Your task to perform on an android device: See recent photos Image 0: 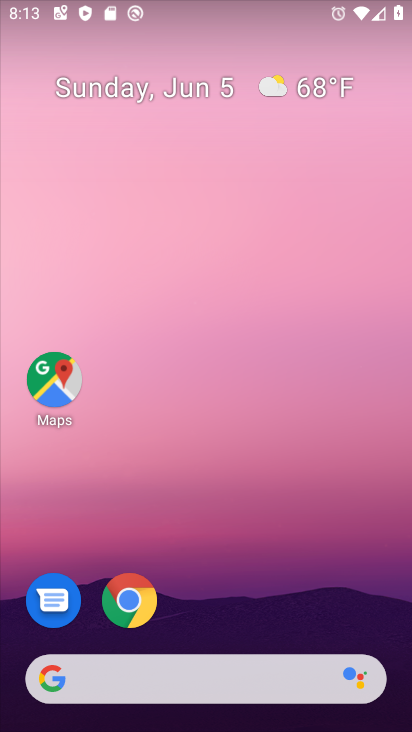
Step 0: drag from (376, 592) to (411, 562)
Your task to perform on an android device: See recent photos Image 1: 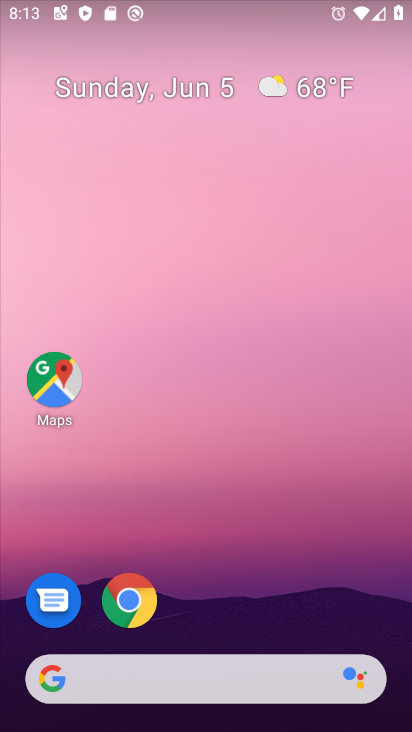
Step 1: click (208, 568)
Your task to perform on an android device: See recent photos Image 2: 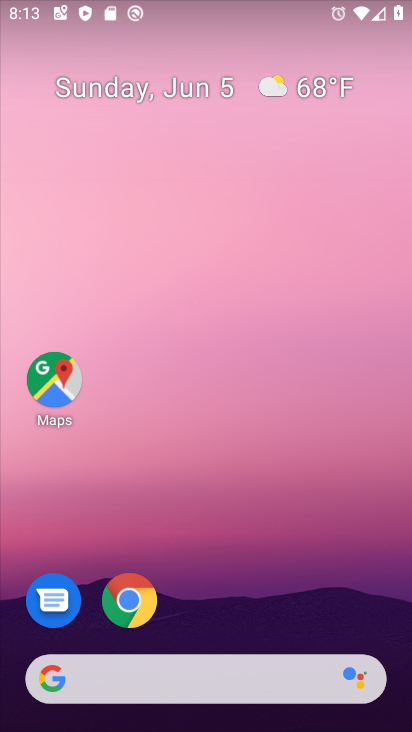
Step 2: drag from (350, 381) to (197, 30)
Your task to perform on an android device: See recent photos Image 3: 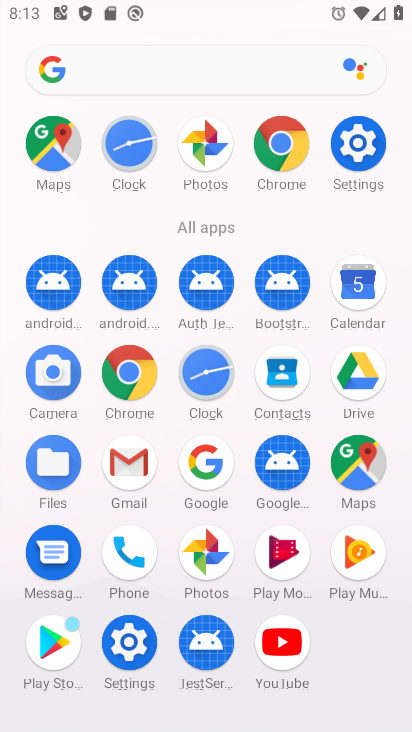
Step 3: click (225, 551)
Your task to perform on an android device: See recent photos Image 4: 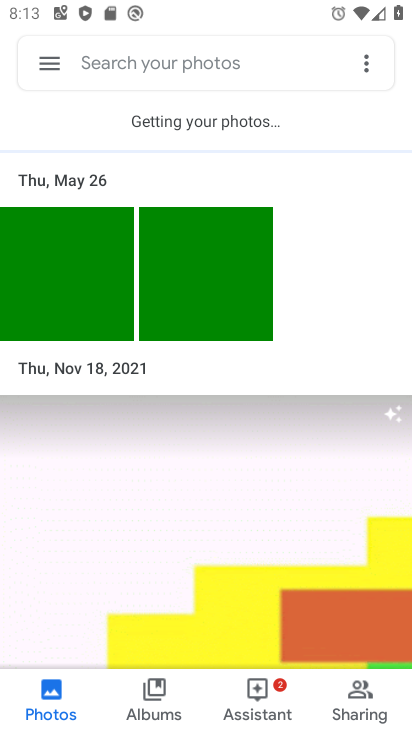
Step 4: click (93, 284)
Your task to perform on an android device: See recent photos Image 5: 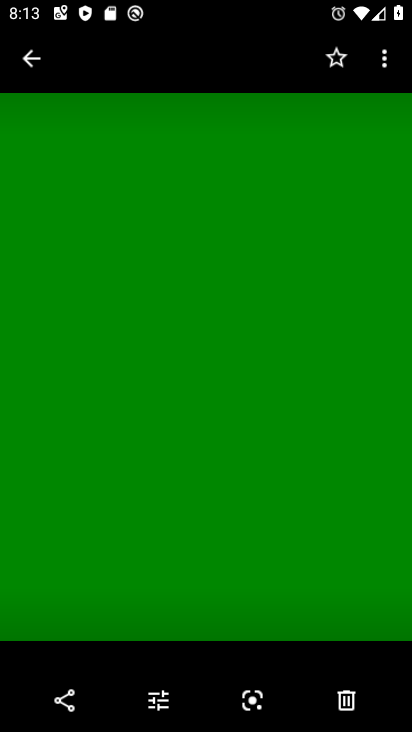
Step 5: task complete